Your task to perform on an android device: open chrome privacy settings Image 0: 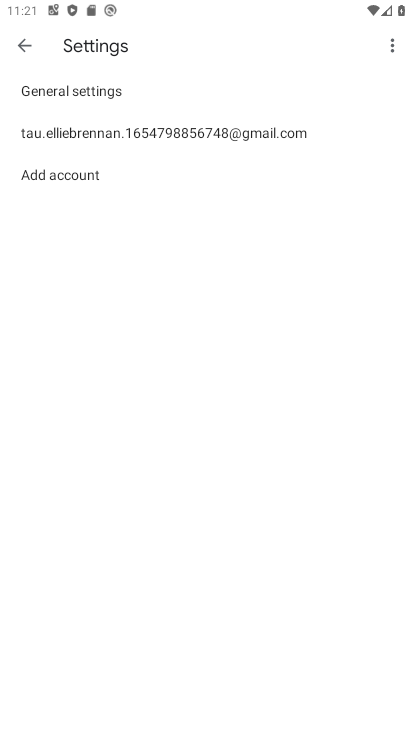
Step 0: press home button
Your task to perform on an android device: open chrome privacy settings Image 1: 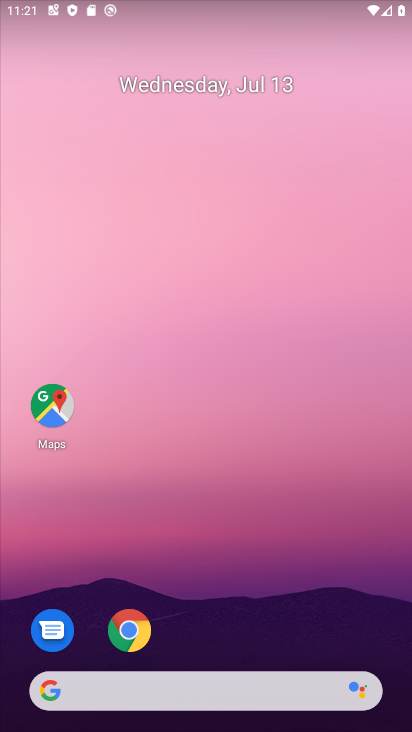
Step 1: drag from (348, 622) to (398, 105)
Your task to perform on an android device: open chrome privacy settings Image 2: 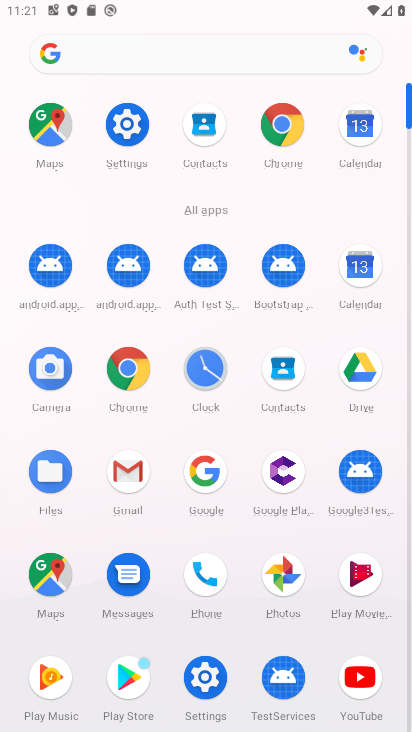
Step 2: click (134, 373)
Your task to perform on an android device: open chrome privacy settings Image 3: 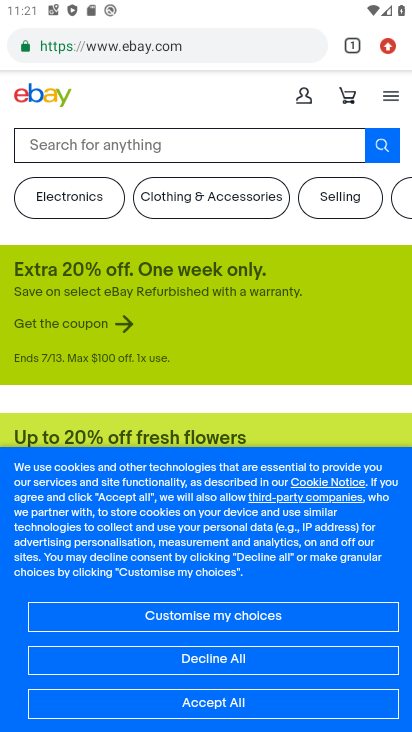
Step 3: click (385, 47)
Your task to perform on an android device: open chrome privacy settings Image 4: 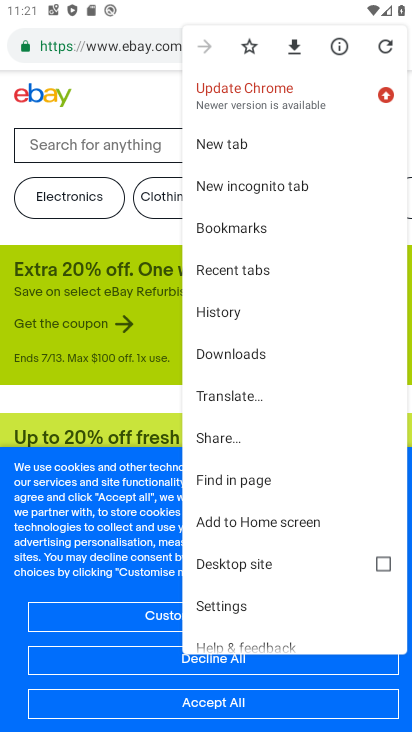
Step 4: drag from (319, 446) to (324, 288)
Your task to perform on an android device: open chrome privacy settings Image 5: 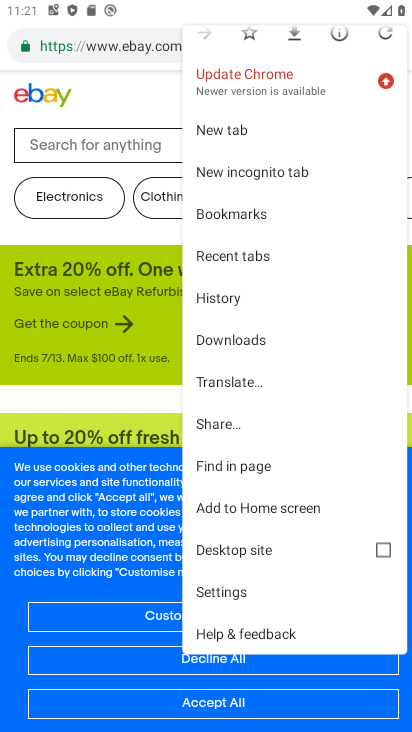
Step 5: click (241, 586)
Your task to perform on an android device: open chrome privacy settings Image 6: 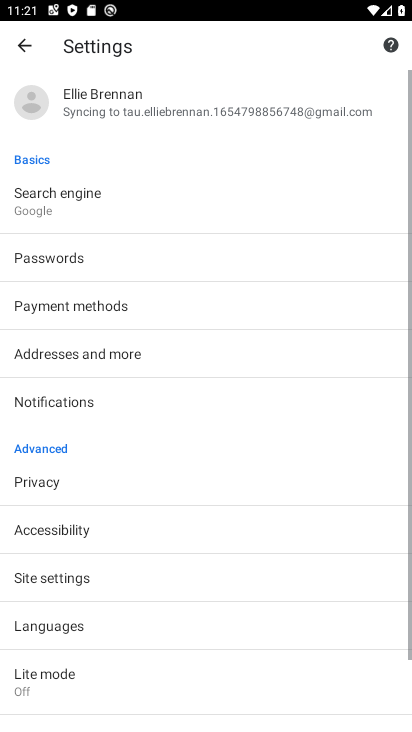
Step 6: drag from (286, 588) to (291, 327)
Your task to perform on an android device: open chrome privacy settings Image 7: 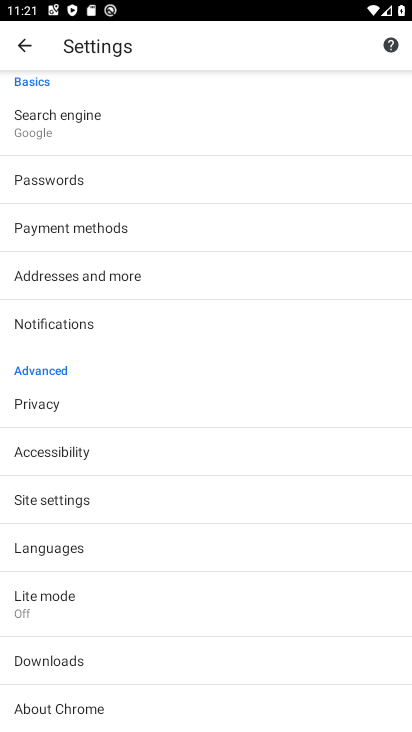
Step 7: drag from (290, 583) to (305, 343)
Your task to perform on an android device: open chrome privacy settings Image 8: 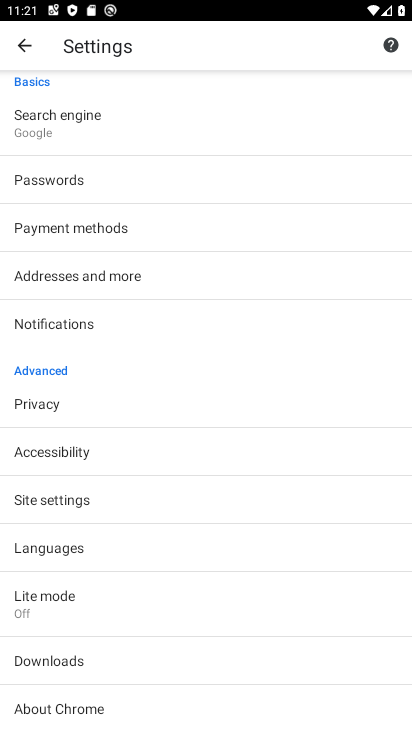
Step 8: drag from (315, 311) to (315, 476)
Your task to perform on an android device: open chrome privacy settings Image 9: 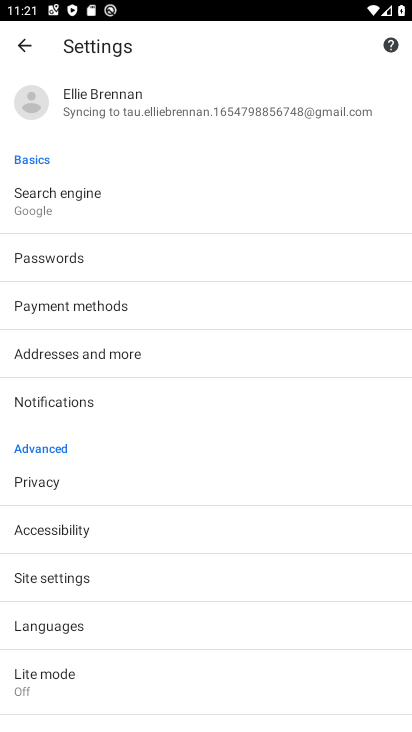
Step 9: drag from (285, 294) to (293, 449)
Your task to perform on an android device: open chrome privacy settings Image 10: 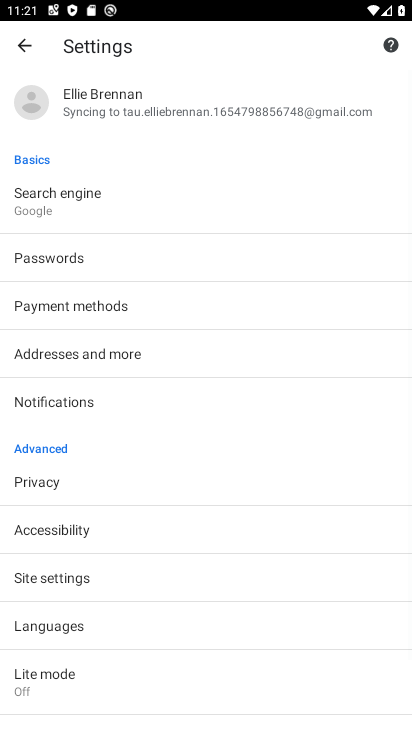
Step 10: drag from (292, 576) to (276, 416)
Your task to perform on an android device: open chrome privacy settings Image 11: 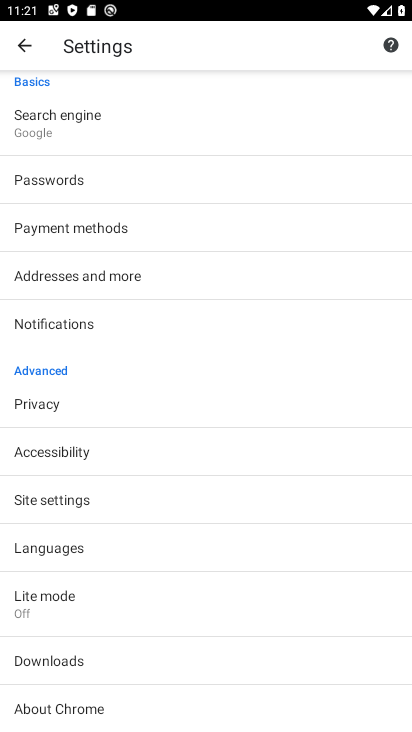
Step 11: drag from (289, 579) to (286, 445)
Your task to perform on an android device: open chrome privacy settings Image 12: 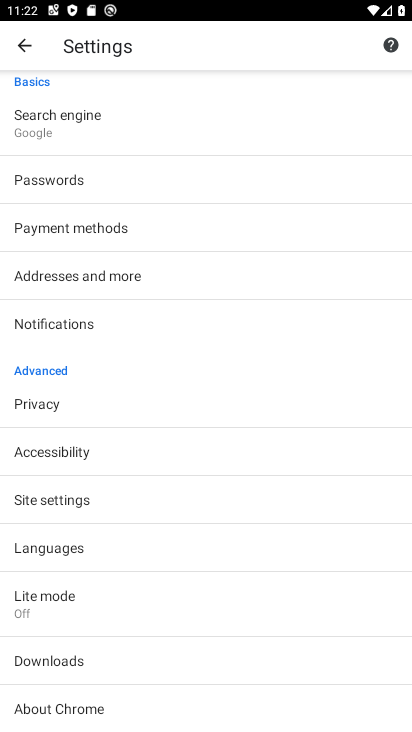
Step 12: drag from (260, 618) to (259, 399)
Your task to perform on an android device: open chrome privacy settings Image 13: 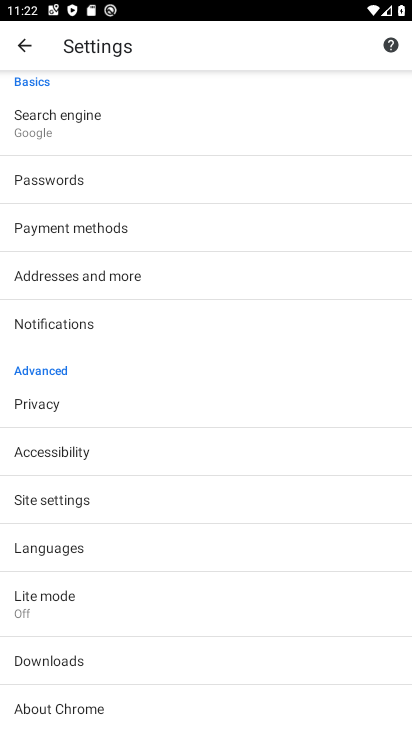
Step 13: click (135, 405)
Your task to perform on an android device: open chrome privacy settings Image 14: 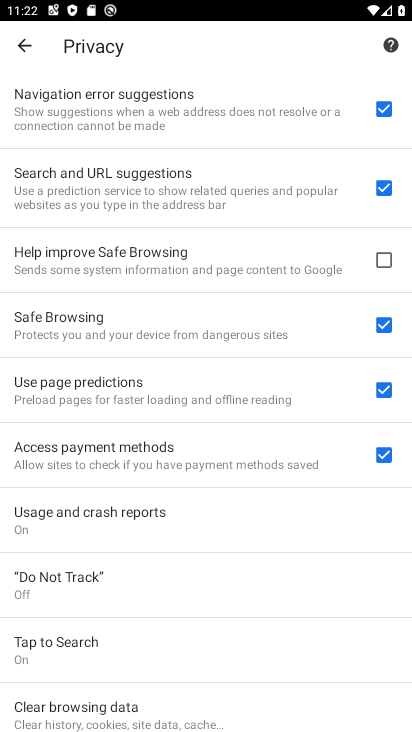
Step 14: task complete